Your task to perform on an android device: Open Reddit.com Image 0: 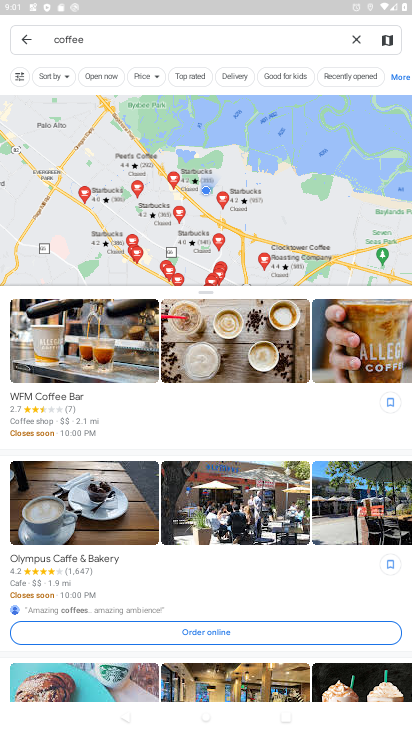
Step 0: press home button
Your task to perform on an android device: Open Reddit.com Image 1: 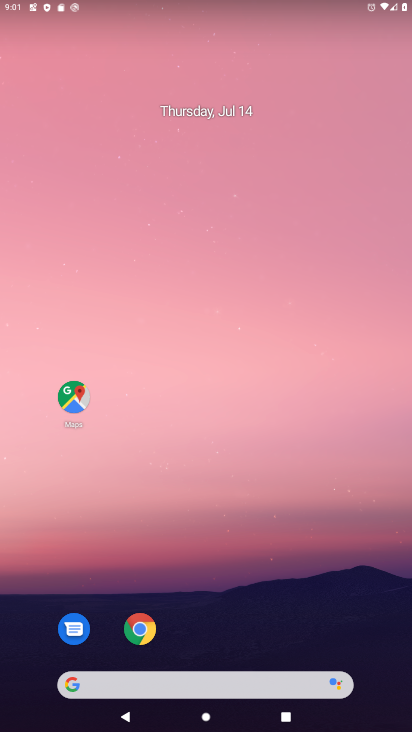
Step 1: click (146, 628)
Your task to perform on an android device: Open Reddit.com Image 2: 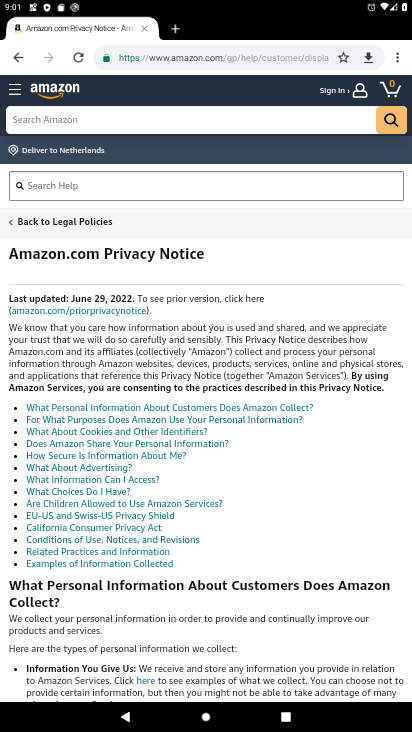
Step 2: click (144, 53)
Your task to perform on an android device: Open Reddit.com Image 3: 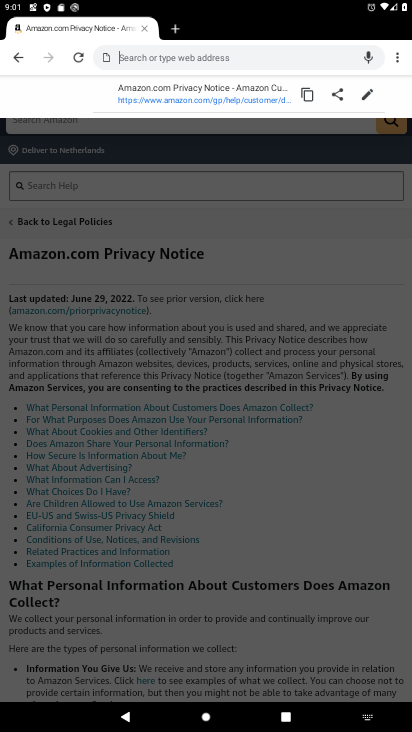
Step 3: type "Reddit.com"
Your task to perform on an android device: Open Reddit.com Image 4: 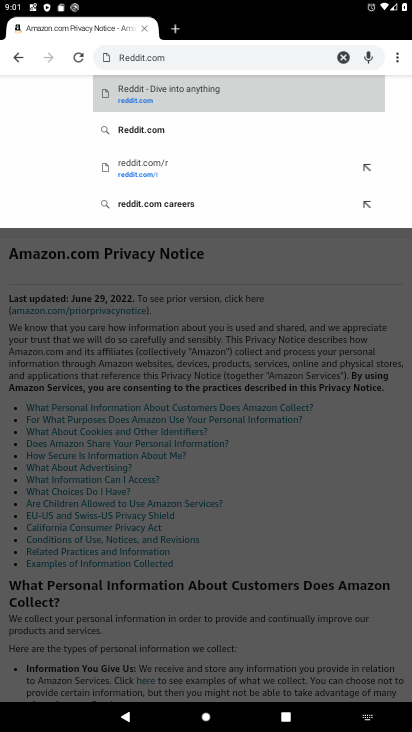
Step 4: click (237, 81)
Your task to perform on an android device: Open Reddit.com Image 5: 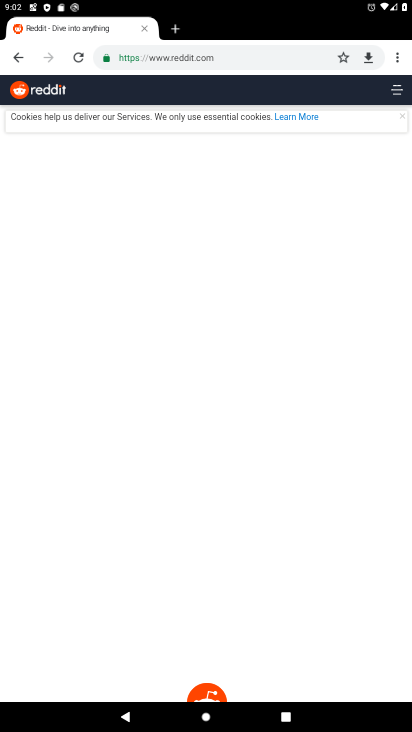
Step 5: task complete